Your task to perform on an android device: Find coffee shops on Maps Image 0: 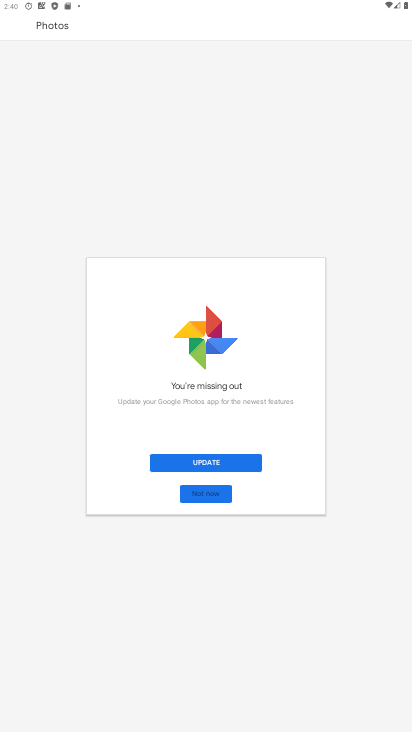
Step 0: press home button
Your task to perform on an android device: Find coffee shops on Maps Image 1: 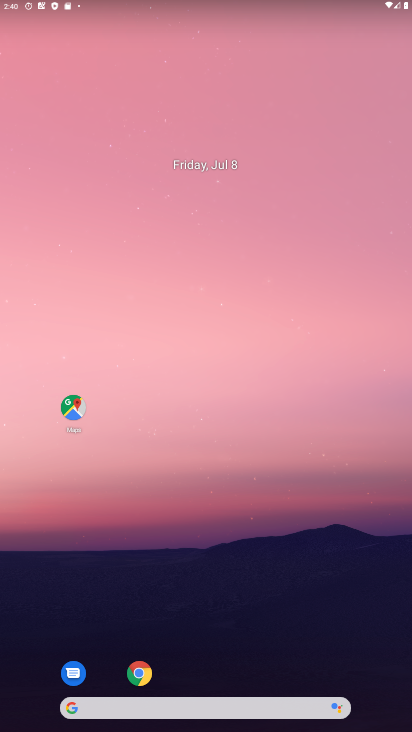
Step 1: click (70, 406)
Your task to perform on an android device: Find coffee shops on Maps Image 2: 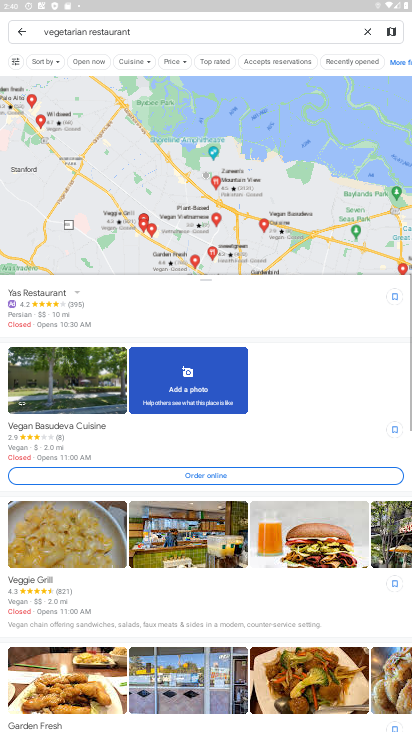
Step 2: click (146, 33)
Your task to perform on an android device: Find coffee shops on Maps Image 3: 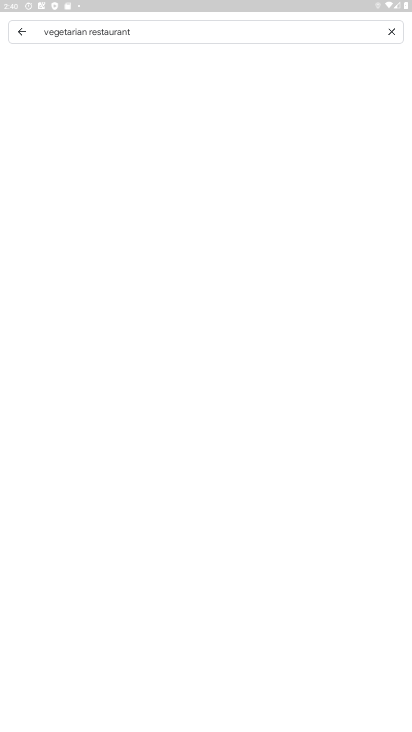
Step 3: click (365, 32)
Your task to perform on an android device: Find coffee shops on Maps Image 4: 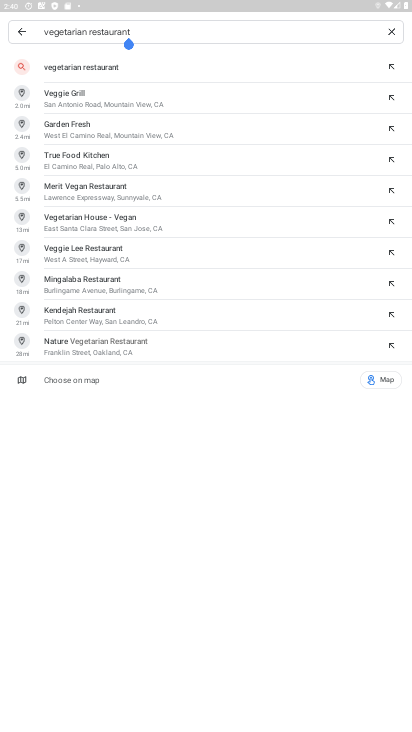
Step 4: click (389, 34)
Your task to perform on an android device: Find coffee shops on Maps Image 5: 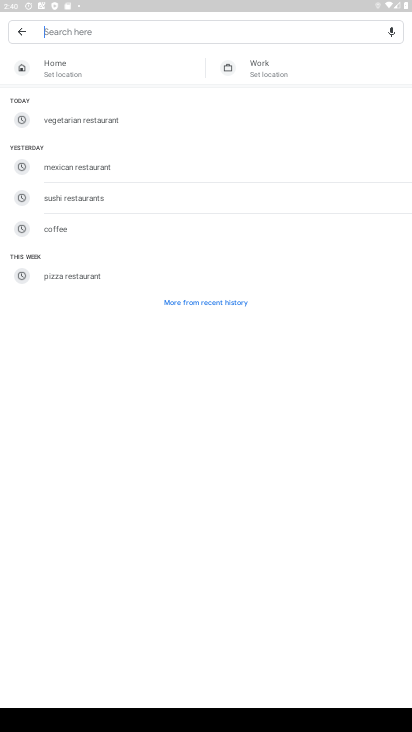
Step 5: click (92, 30)
Your task to perform on an android device: Find coffee shops on Maps Image 6: 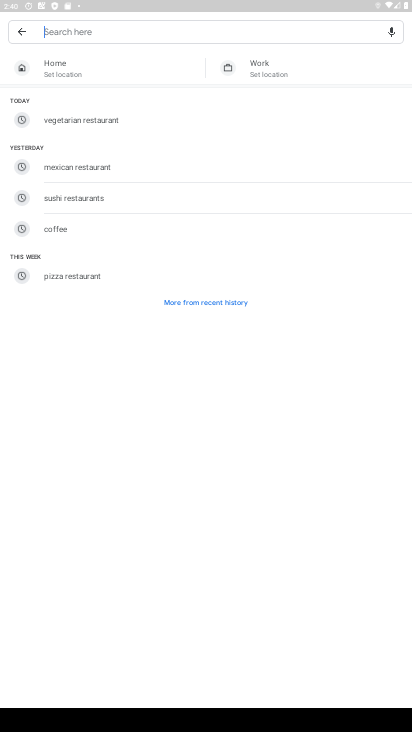
Step 6: click (54, 28)
Your task to perform on an android device: Find coffee shops on Maps Image 7: 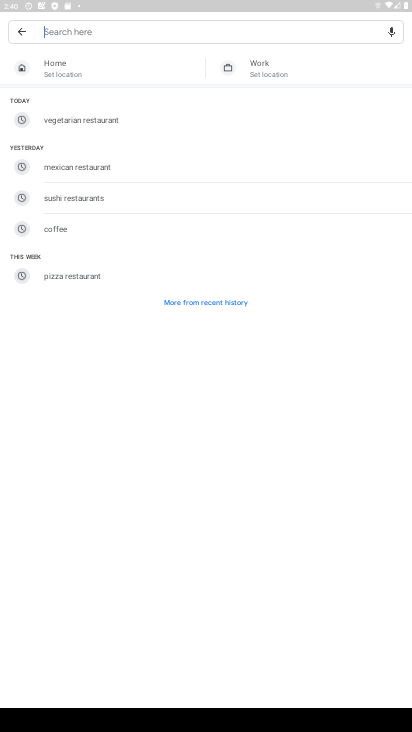
Step 7: click (67, 230)
Your task to perform on an android device: Find coffee shops on Maps Image 8: 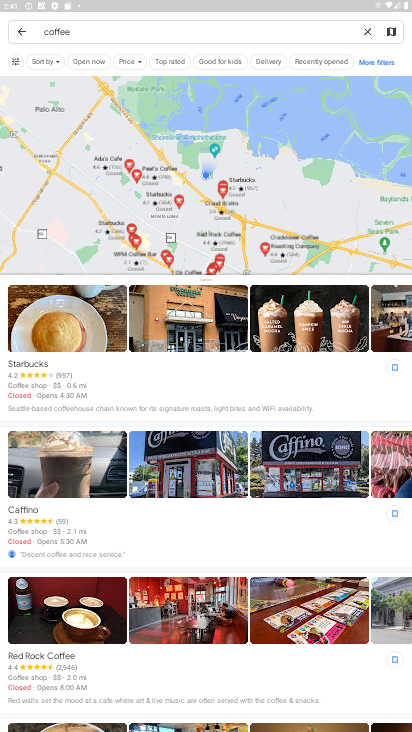
Step 8: task complete